Your task to perform on an android device: open a bookmark in the chrome app Image 0: 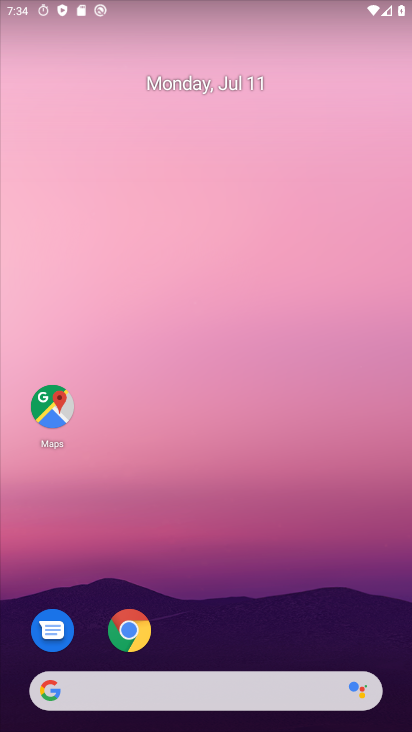
Step 0: click (139, 627)
Your task to perform on an android device: open a bookmark in the chrome app Image 1: 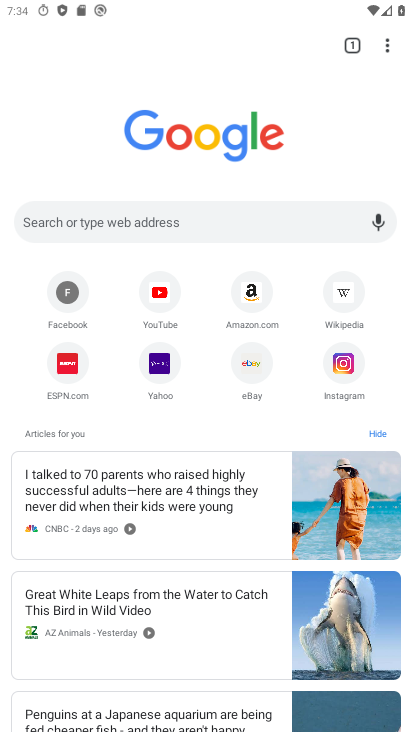
Step 1: task complete